Your task to perform on an android device: Open Youtube and go to the subscriptions tab Image 0: 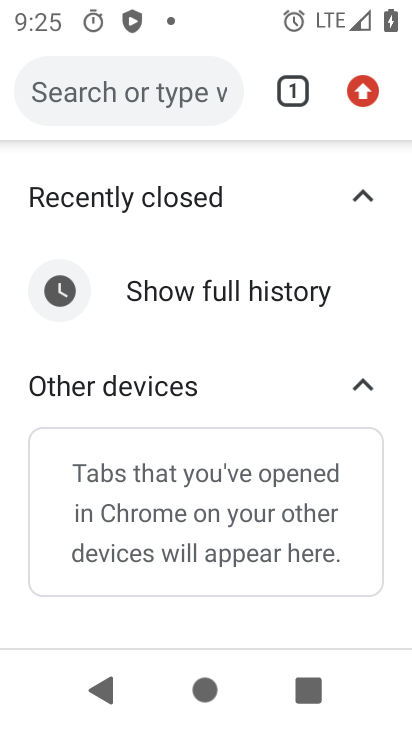
Step 0: press home button
Your task to perform on an android device: Open Youtube and go to the subscriptions tab Image 1: 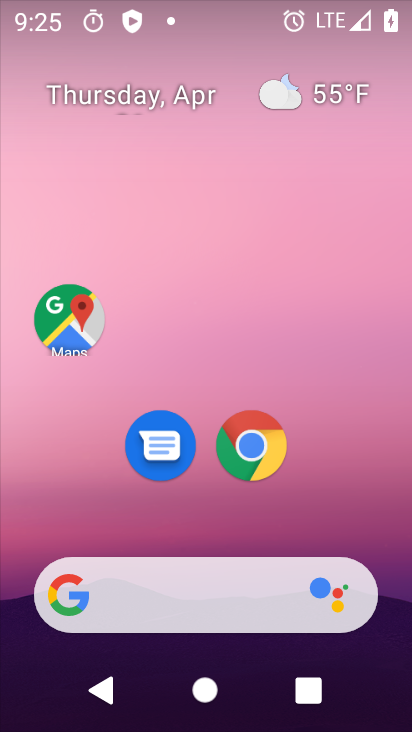
Step 1: drag from (397, 521) to (404, 15)
Your task to perform on an android device: Open Youtube and go to the subscriptions tab Image 2: 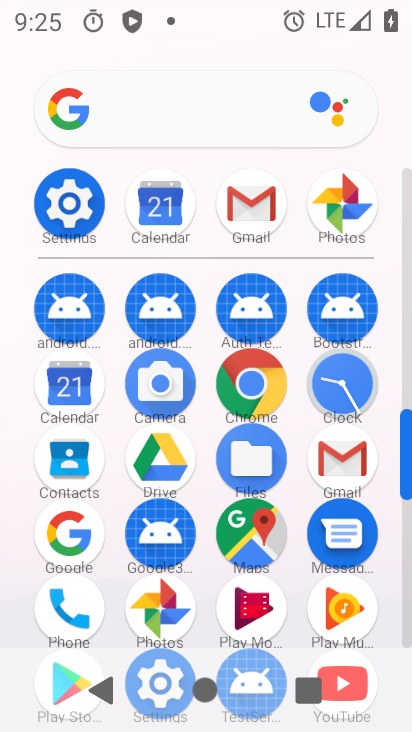
Step 2: click (406, 599)
Your task to perform on an android device: Open Youtube and go to the subscriptions tab Image 3: 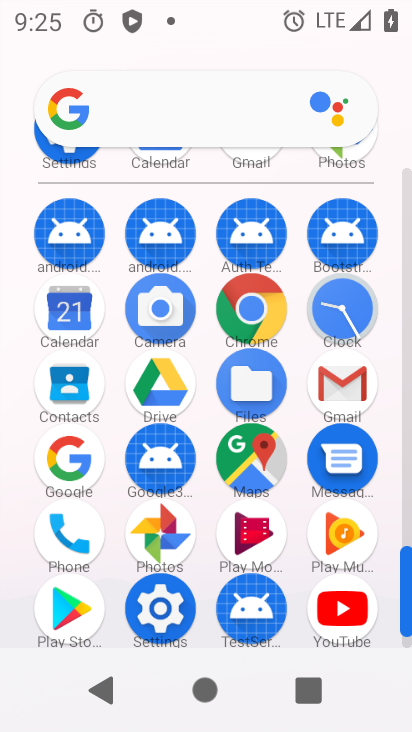
Step 3: click (354, 619)
Your task to perform on an android device: Open Youtube and go to the subscriptions tab Image 4: 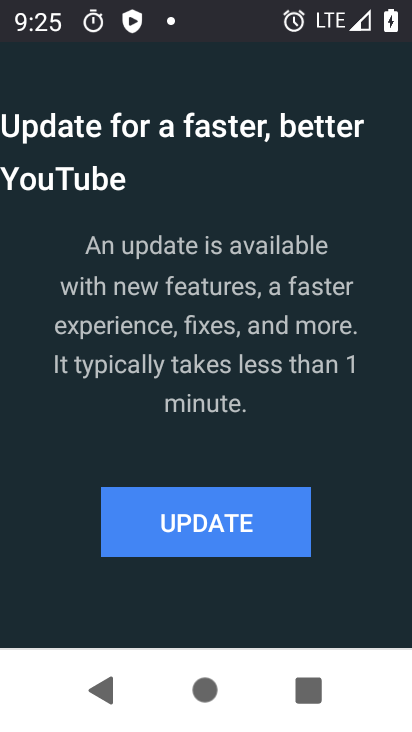
Step 4: click (229, 519)
Your task to perform on an android device: Open Youtube and go to the subscriptions tab Image 5: 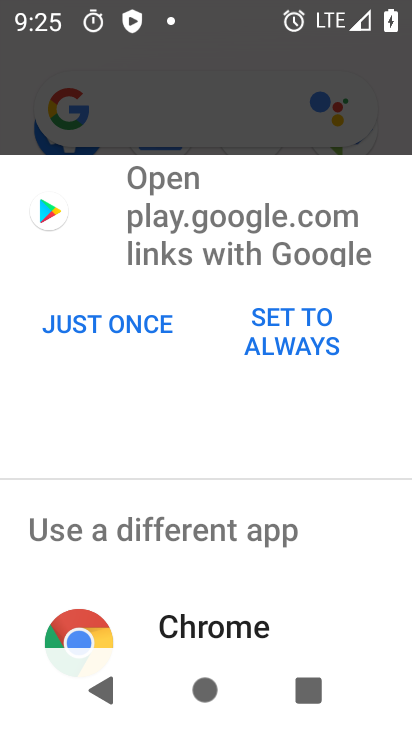
Step 5: click (129, 327)
Your task to perform on an android device: Open Youtube and go to the subscriptions tab Image 6: 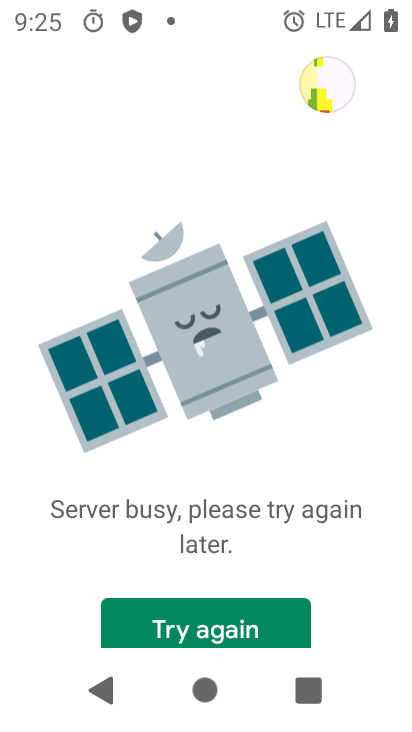
Step 6: task complete